Your task to perform on an android device: Go to settings Image 0: 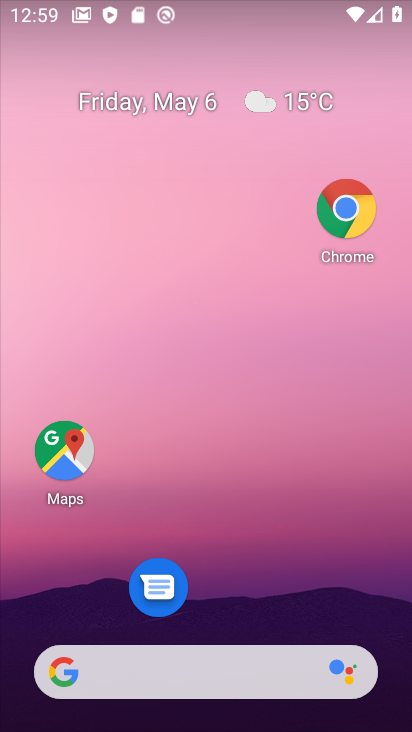
Step 0: drag from (284, 114) to (283, 73)
Your task to perform on an android device: Go to settings Image 1: 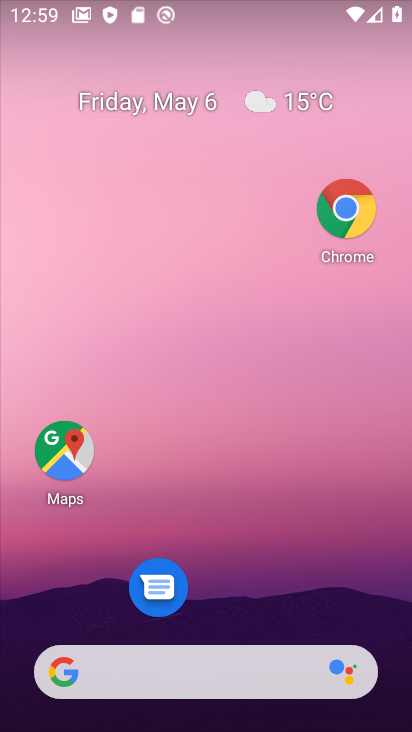
Step 1: drag from (222, 589) to (129, 19)
Your task to perform on an android device: Go to settings Image 2: 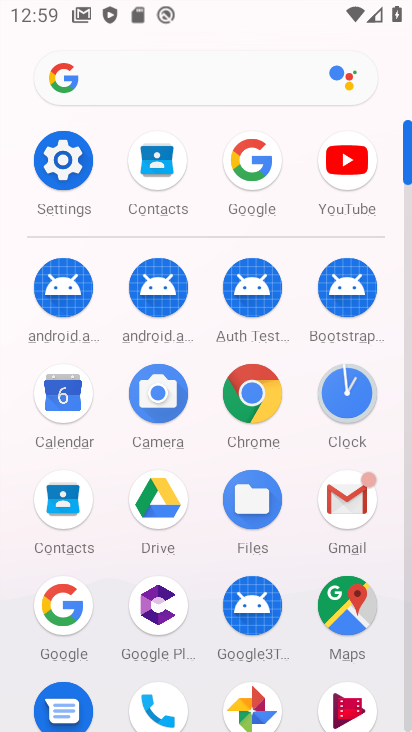
Step 2: click (66, 201)
Your task to perform on an android device: Go to settings Image 3: 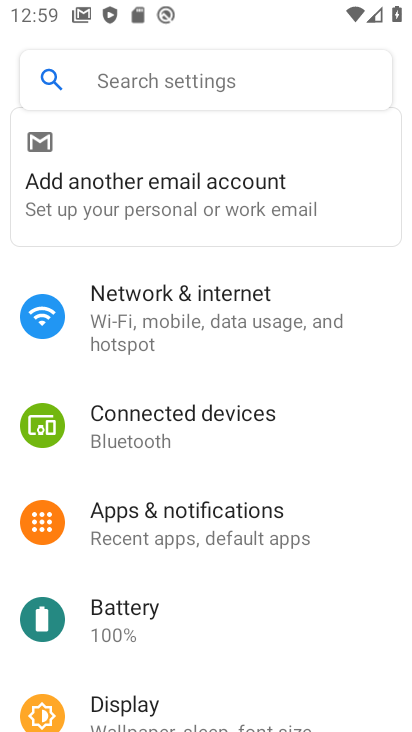
Step 3: task complete